Your task to perform on an android device: Show the shopping cart on newegg.com. Add panasonic triple a to the cart on newegg.com, then select checkout. Image 0: 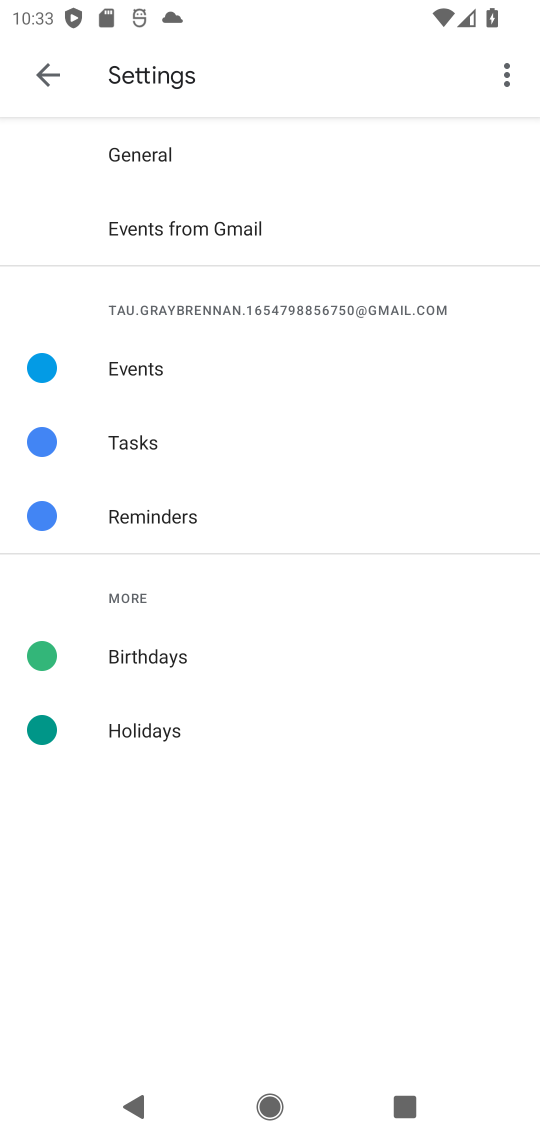
Step 0: press home button
Your task to perform on an android device: Show the shopping cart on newegg.com. Add panasonic triple a to the cart on newegg.com, then select checkout. Image 1: 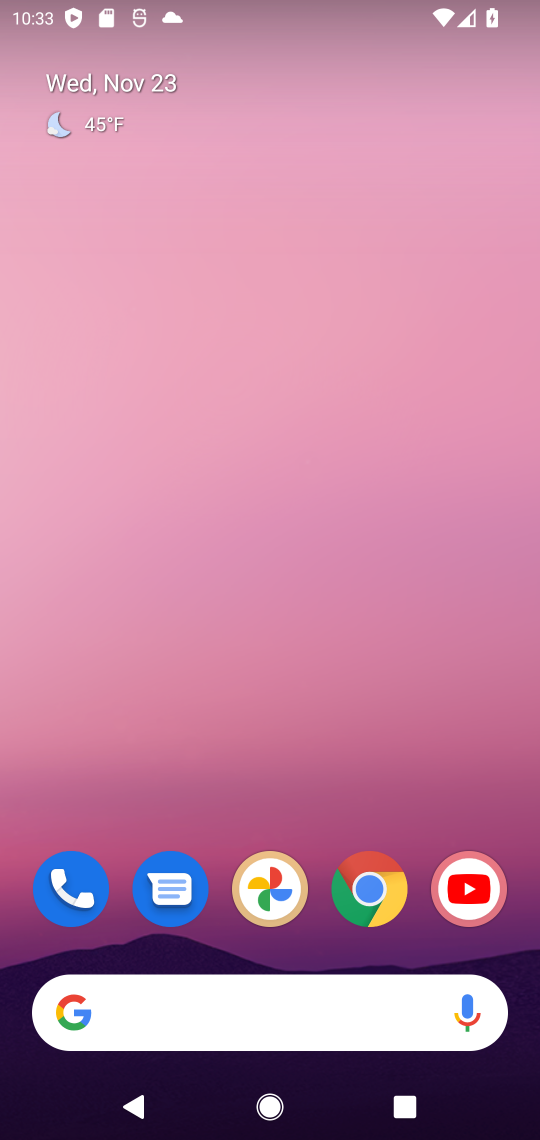
Step 1: click (355, 894)
Your task to perform on an android device: Show the shopping cart on newegg.com. Add panasonic triple a to the cart on newegg.com, then select checkout. Image 2: 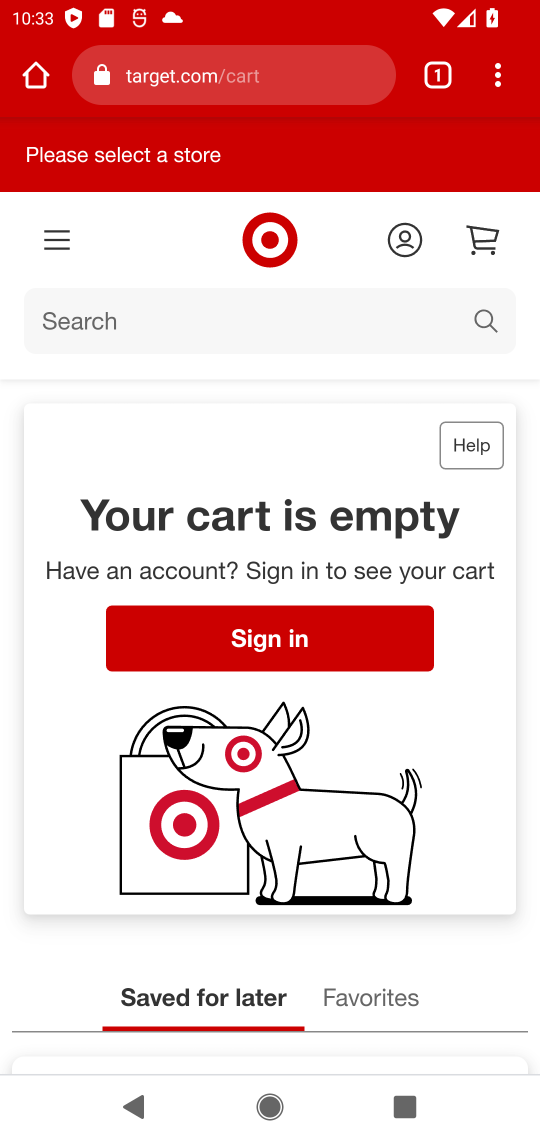
Step 2: click (168, 78)
Your task to perform on an android device: Show the shopping cart on newegg.com. Add panasonic triple a to the cart on newegg.com, then select checkout. Image 3: 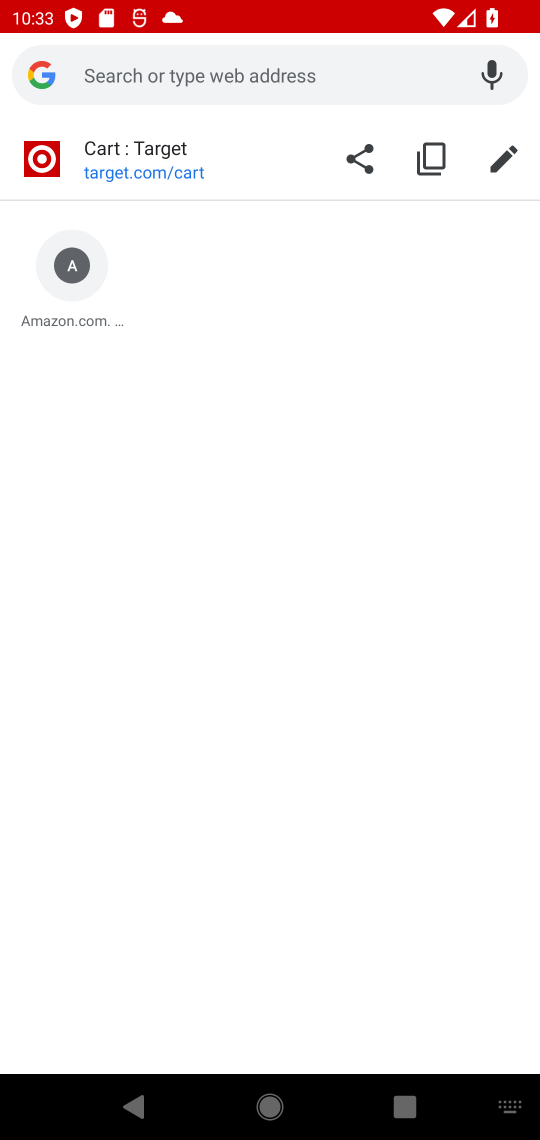
Step 3: type "newegg.com"
Your task to perform on an android device: Show the shopping cart on newegg.com. Add panasonic triple a to the cart on newegg.com, then select checkout. Image 4: 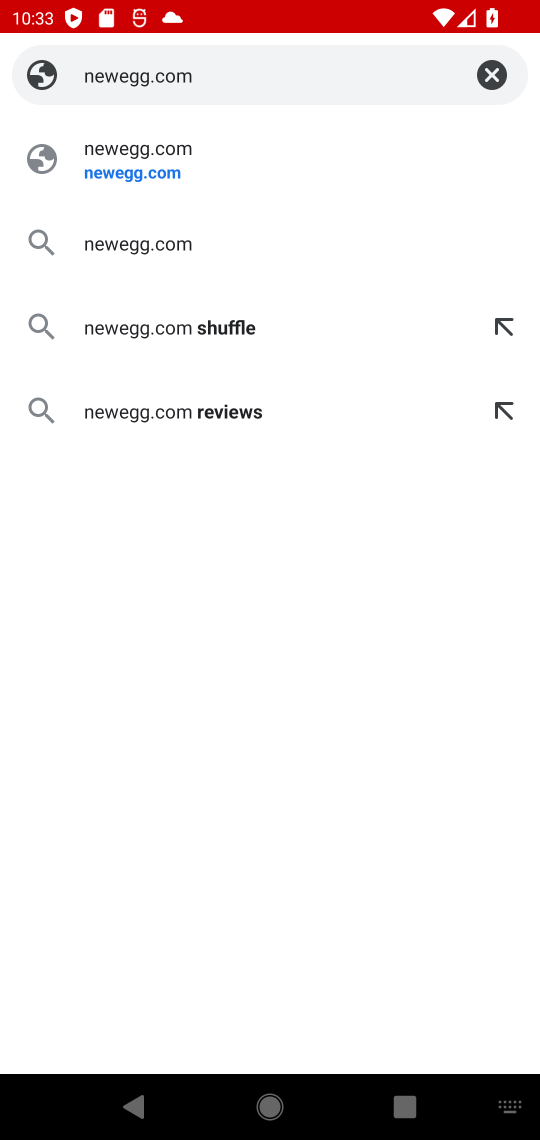
Step 4: click (116, 171)
Your task to perform on an android device: Show the shopping cart on newegg.com. Add panasonic triple a to the cart on newegg.com, then select checkout. Image 5: 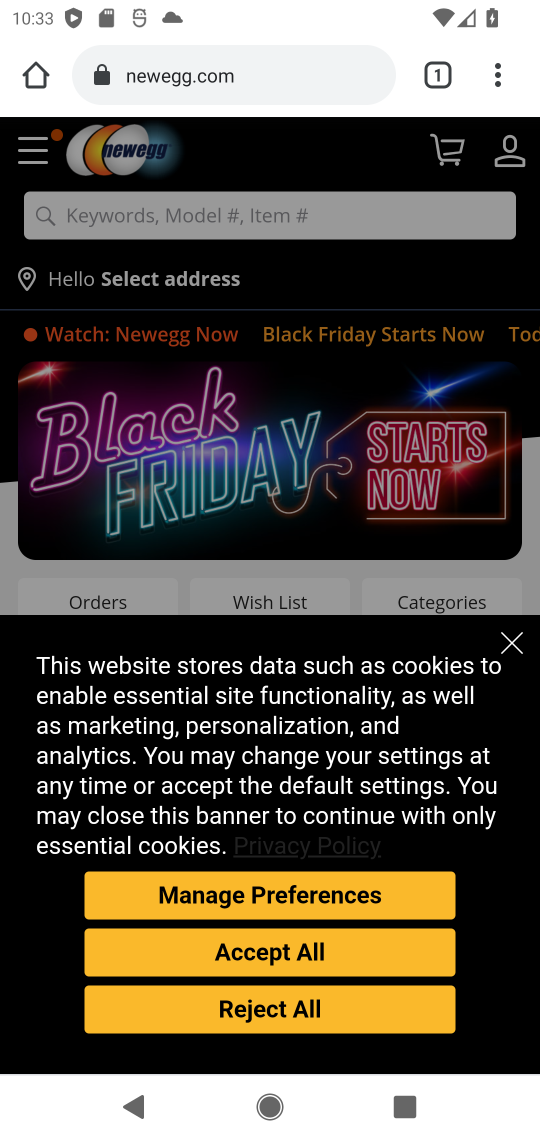
Step 5: click (453, 159)
Your task to perform on an android device: Show the shopping cart on newegg.com. Add panasonic triple a to the cart on newegg.com, then select checkout. Image 6: 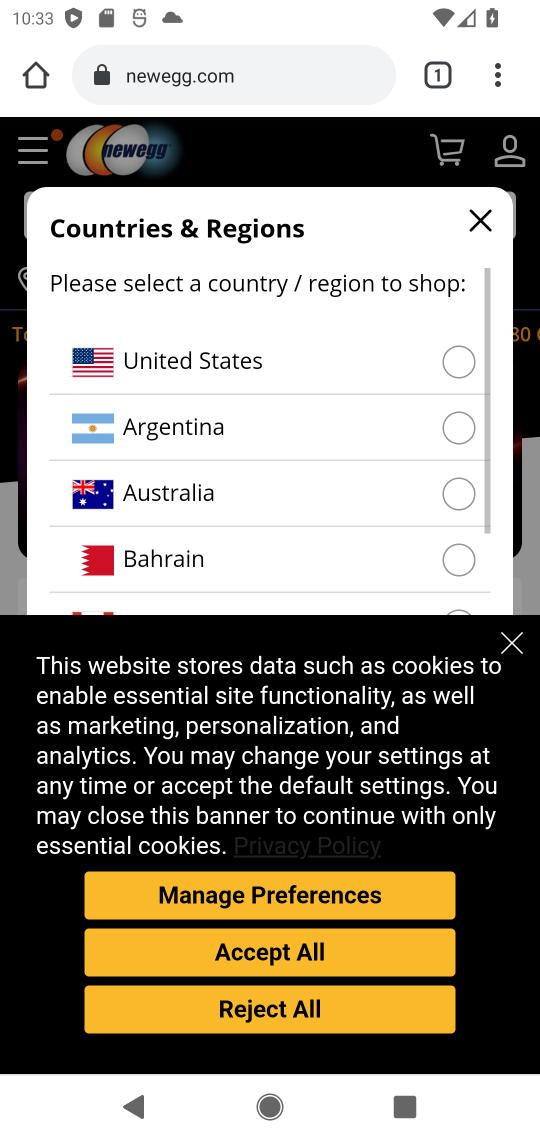
Step 6: click (515, 644)
Your task to perform on an android device: Show the shopping cart on newegg.com. Add panasonic triple a to the cart on newegg.com, then select checkout. Image 7: 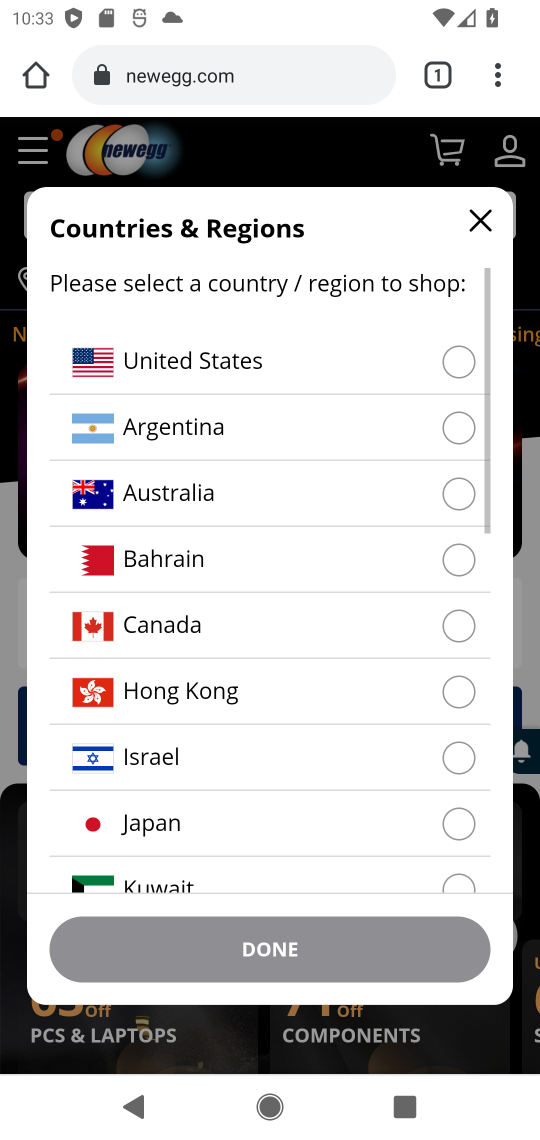
Step 7: click (156, 361)
Your task to perform on an android device: Show the shopping cart on newegg.com. Add panasonic triple a to the cart on newegg.com, then select checkout. Image 8: 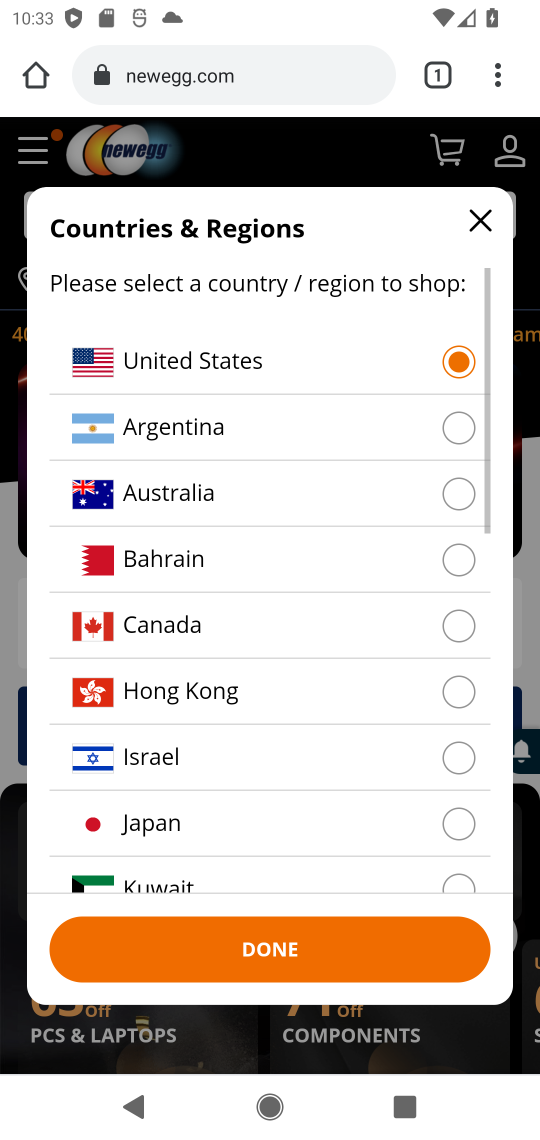
Step 8: click (230, 961)
Your task to perform on an android device: Show the shopping cart on newegg.com. Add panasonic triple a to the cart on newegg.com, then select checkout. Image 9: 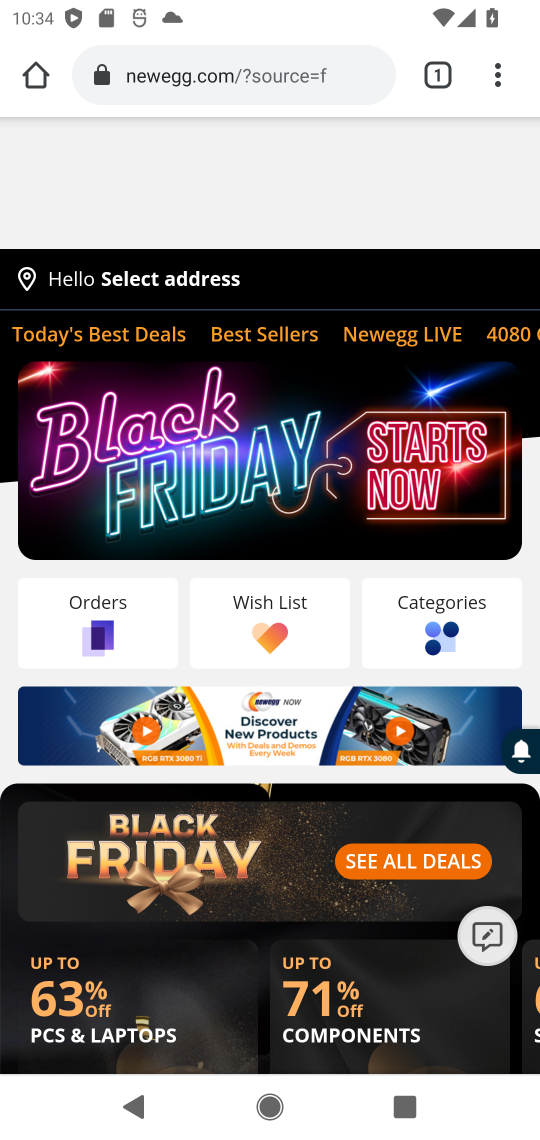
Step 9: click (455, 145)
Your task to perform on an android device: Show the shopping cart on newegg.com. Add panasonic triple a to the cart on newegg.com, then select checkout. Image 10: 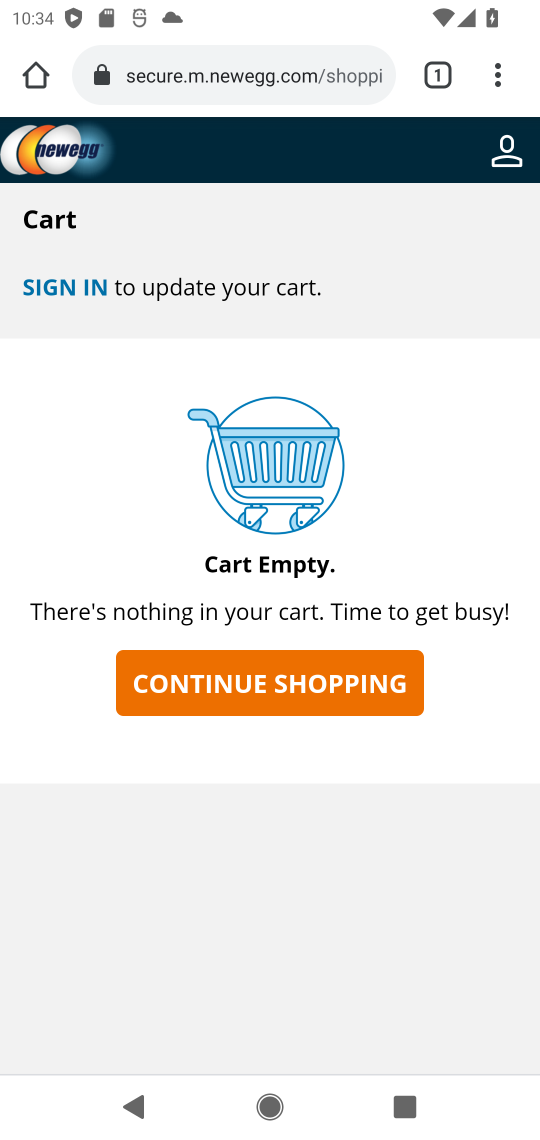
Step 10: click (255, 684)
Your task to perform on an android device: Show the shopping cart on newegg.com. Add panasonic triple a to the cart on newegg.com, then select checkout. Image 11: 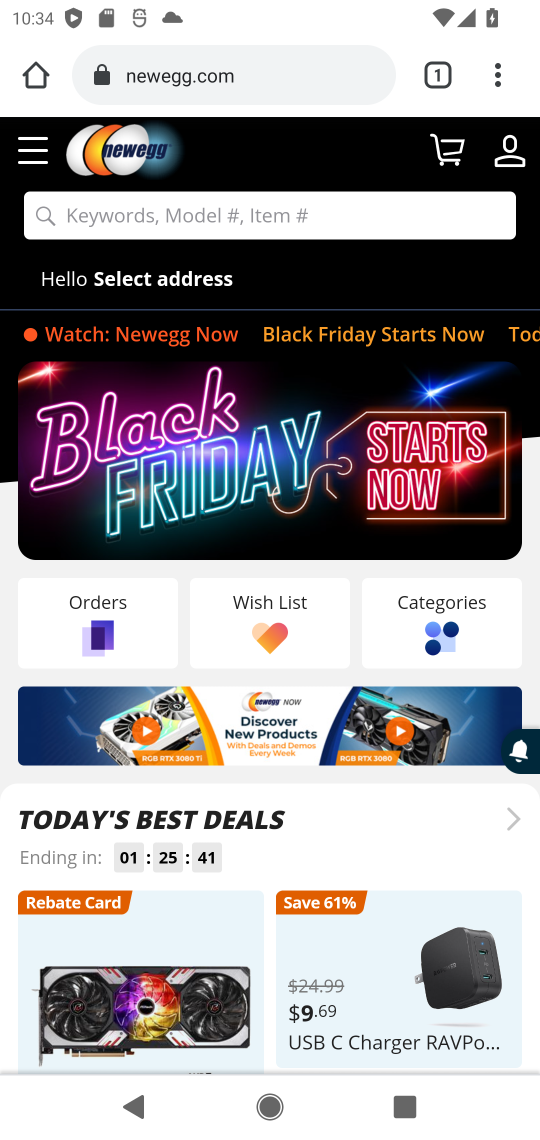
Step 11: click (207, 218)
Your task to perform on an android device: Show the shopping cart on newegg.com. Add panasonic triple a to the cart on newegg.com, then select checkout. Image 12: 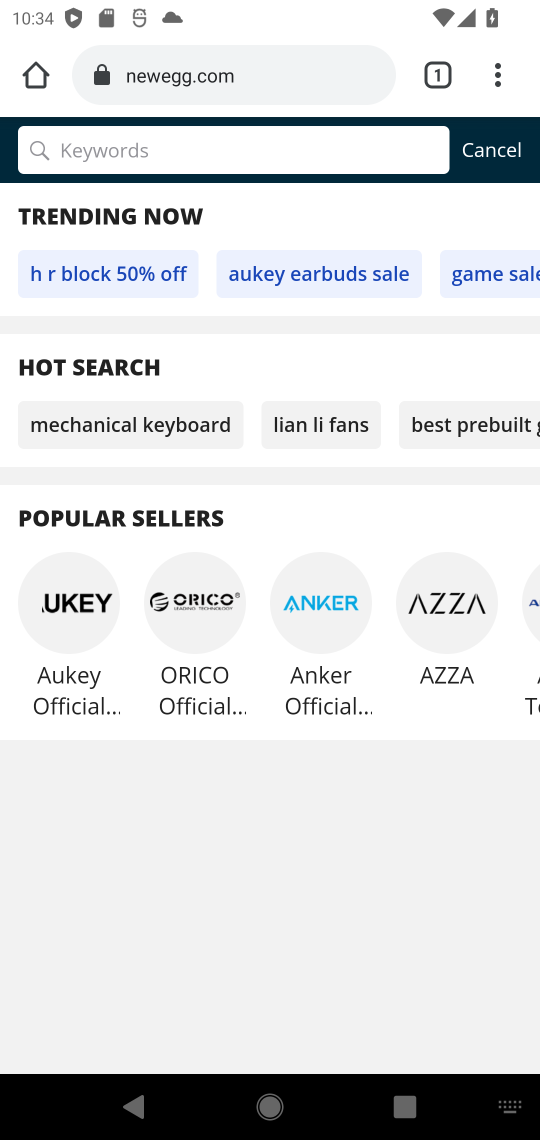
Step 12: type "panasonic triple a"
Your task to perform on an android device: Show the shopping cart on newegg.com. Add panasonic triple a to the cart on newegg.com, then select checkout. Image 13: 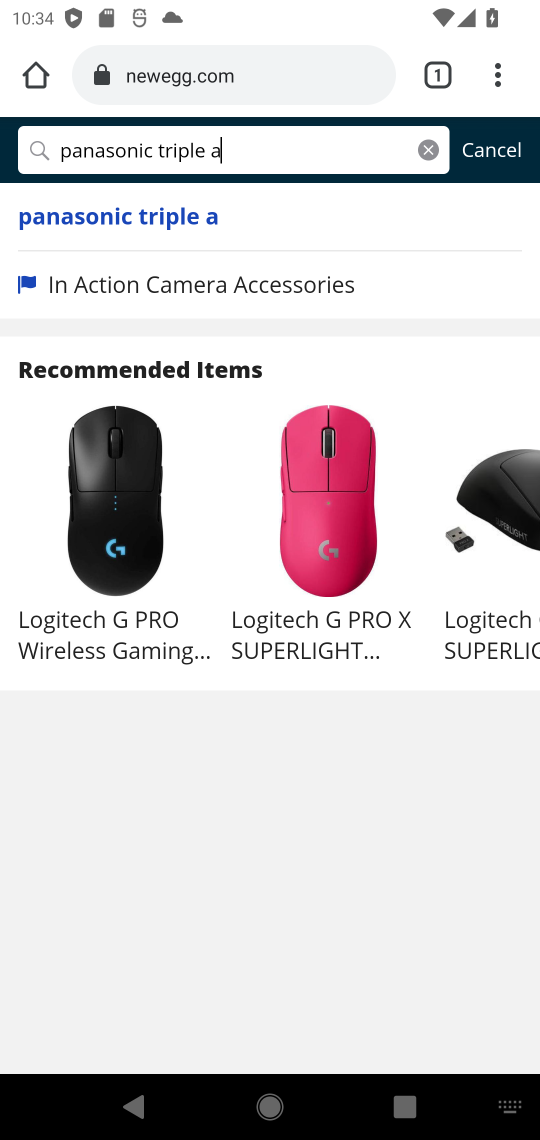
Step 13: click (117, 215)
Your task to perform on an android device: Show the shopping cart on newegg.com. Add panasonic triple a to the cart on newegg.com, then select checkout. Image 14: 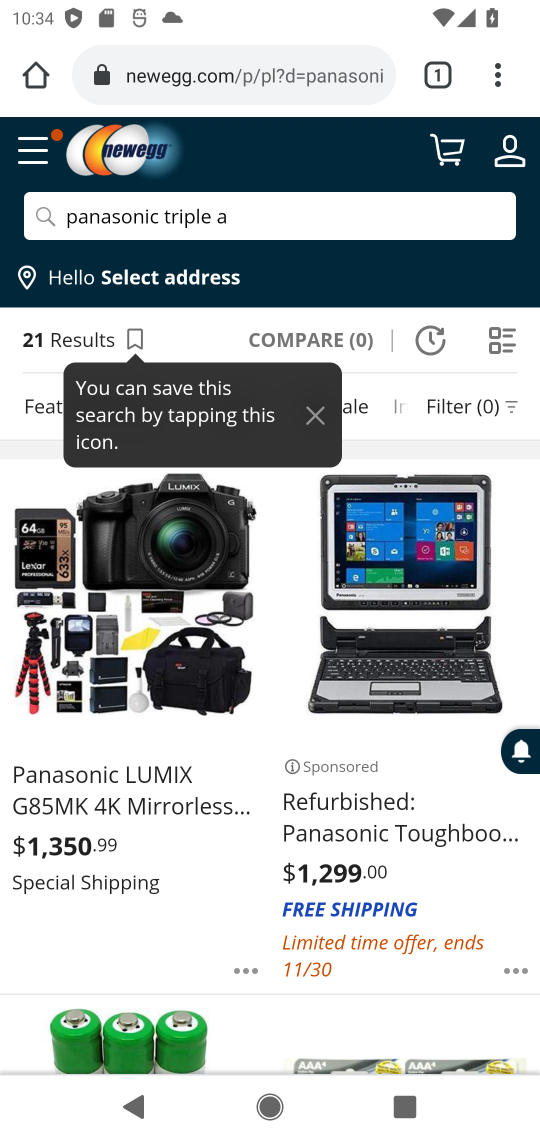
Step 14: drag from (168, 893) to (196, 685)
Your task to perform on an android device: Show the shopping cart on newegg.com. Add panasonic triple a to the cart on newegg.com, then select checkout. Image 15: 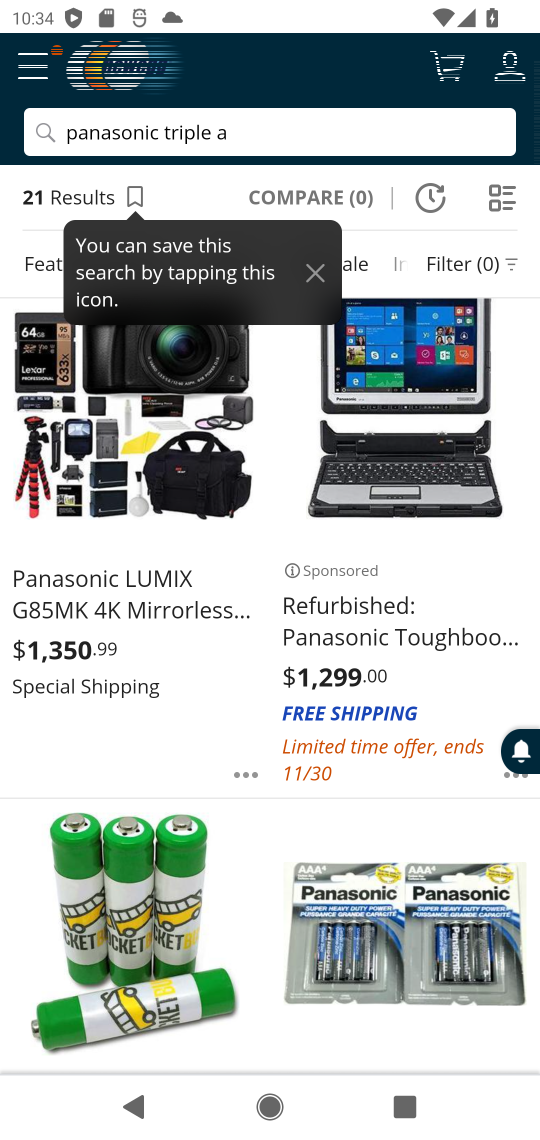
Step 15: drag from (172, 941) to (170, 612)
Your task to perform on an android device: Show the shopping cart on newegg.com. Add panasonic triple a to the cart on newegg.com, then select checkout. Image 16: 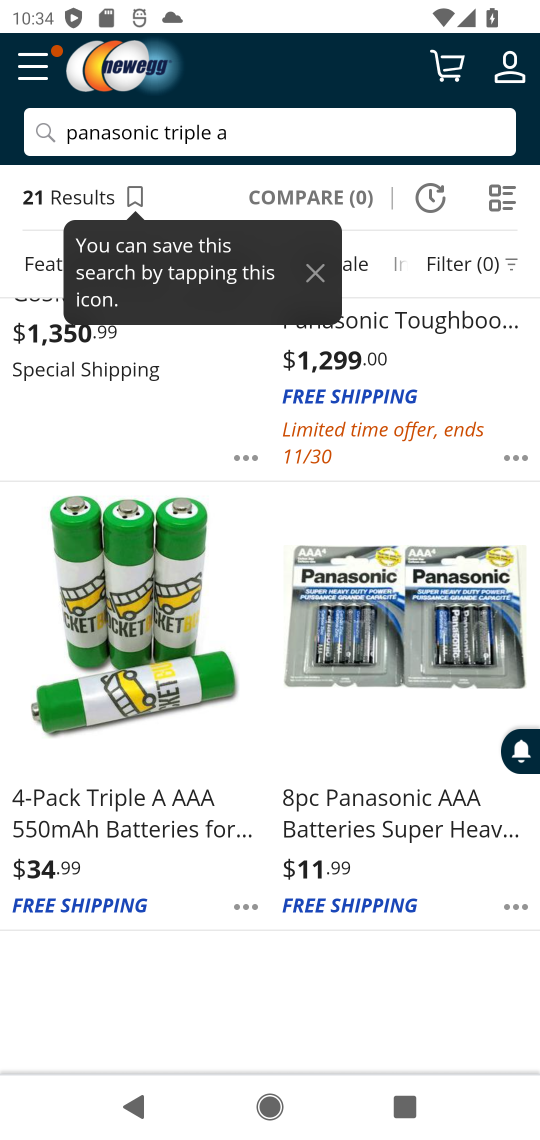
Step 16: click (434, 654)
Your task to perform on an android device: Show the shopping cart on newegg.com. Add panasonic triple a to the cart on newegg.com, then select checkout. Image 17: 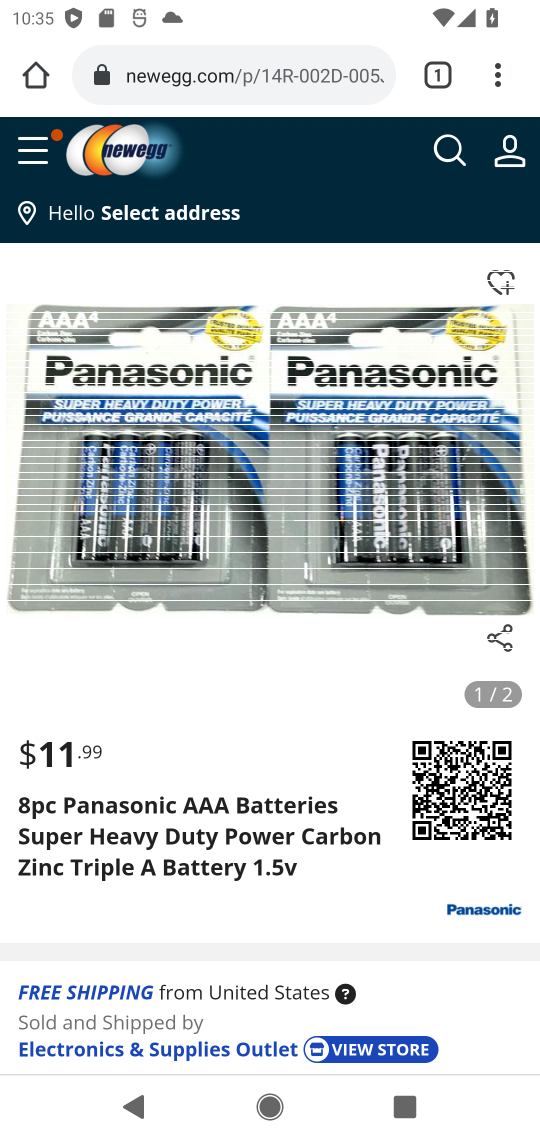
Step 17: click (272, 1041)
Your task to perform on an android device: Show the shopping cart on newegg.com. Add panasonic triple a to the cart on newegg.com, then select checkout. Image 18: 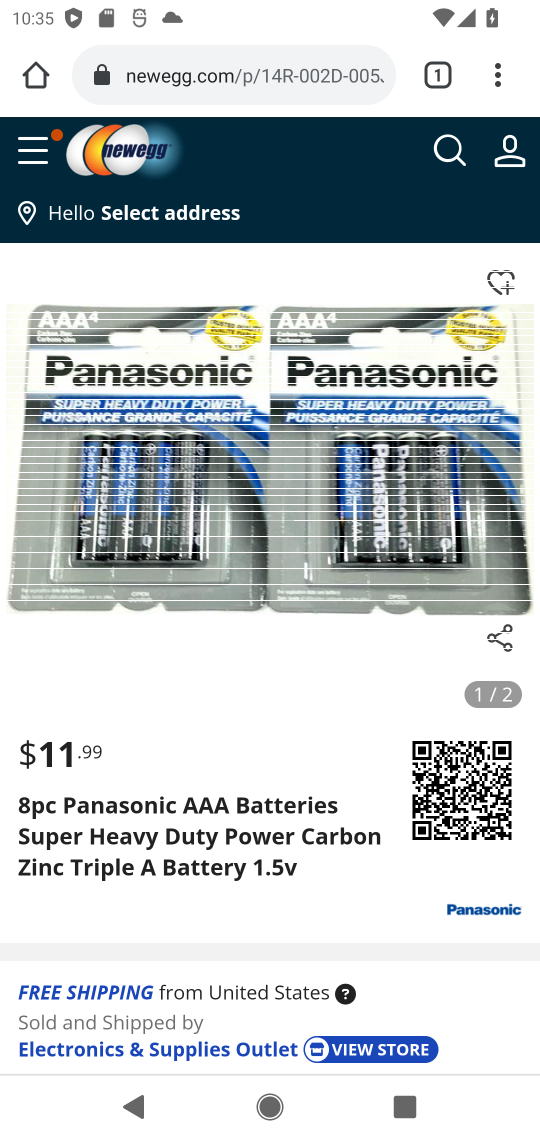
Step 18: drag from (272, 1038) to (285, 707)
Your task to perform on an android device: Show the shopping cart on newegg.com. Add panasonic triple a to the cart on newegg.com, then select checkout. Image 19: 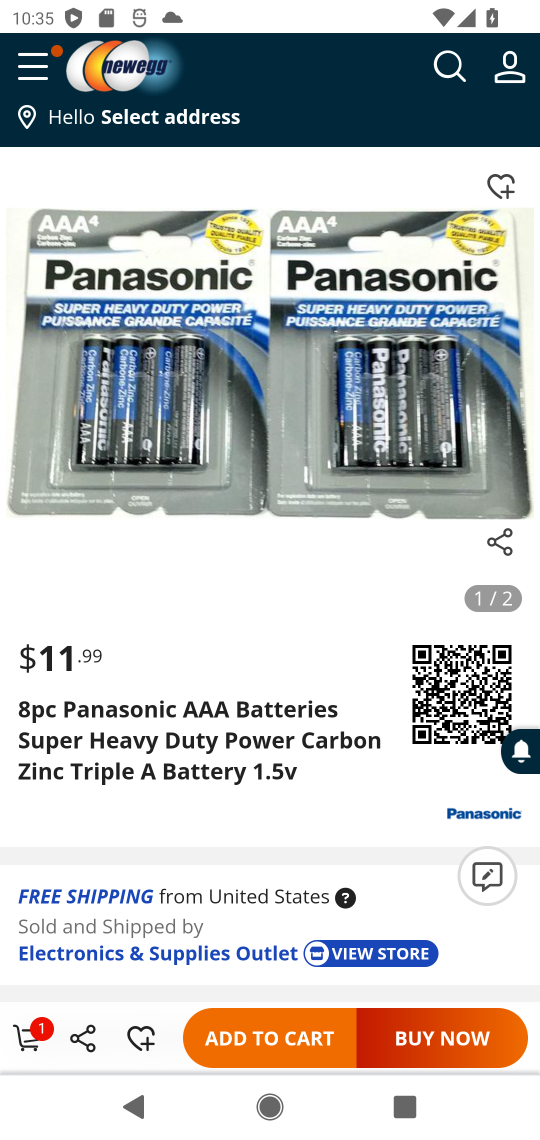
Step 19: click (31, 1036)
Your task to perform on an android device: Show the shopping cart on newegg.com. Add panasonic triple a to the cart on newegg.com, then select checkout. Image 20: 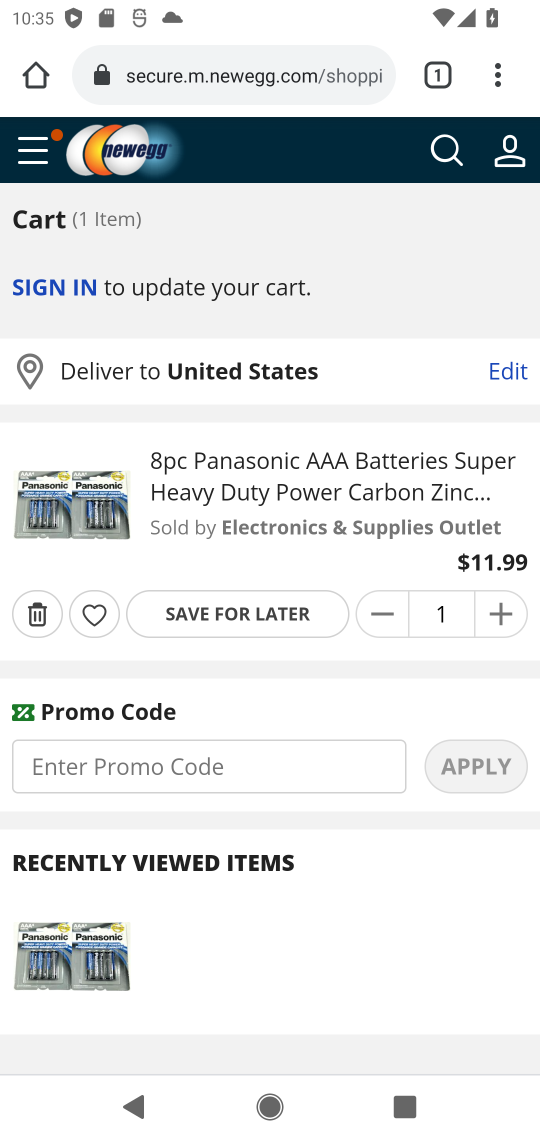
Step 20: click (223, 917)
Your task to perform on an android device: Show the shopping cart on newegg.com. Add panasonic triple a to the cart on newegg.com, then select checkout. Image 21: 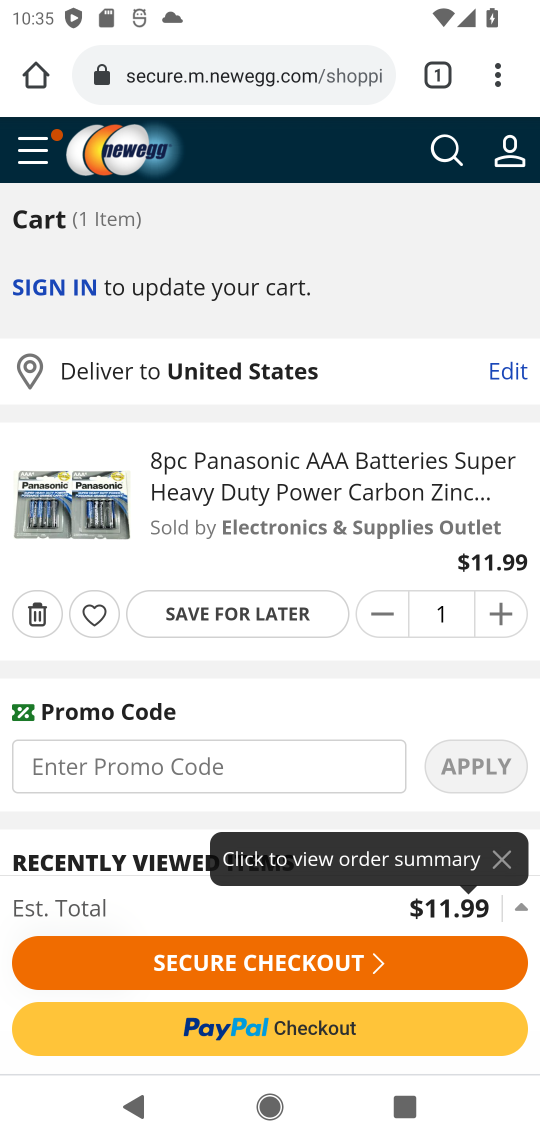
Step 21: click (214, 984)
Your task to perform on an android device: Show the shopping cart on newegg.com. Add panasonic triple a to the cart on newegg.com, then select checkout. Image 22: 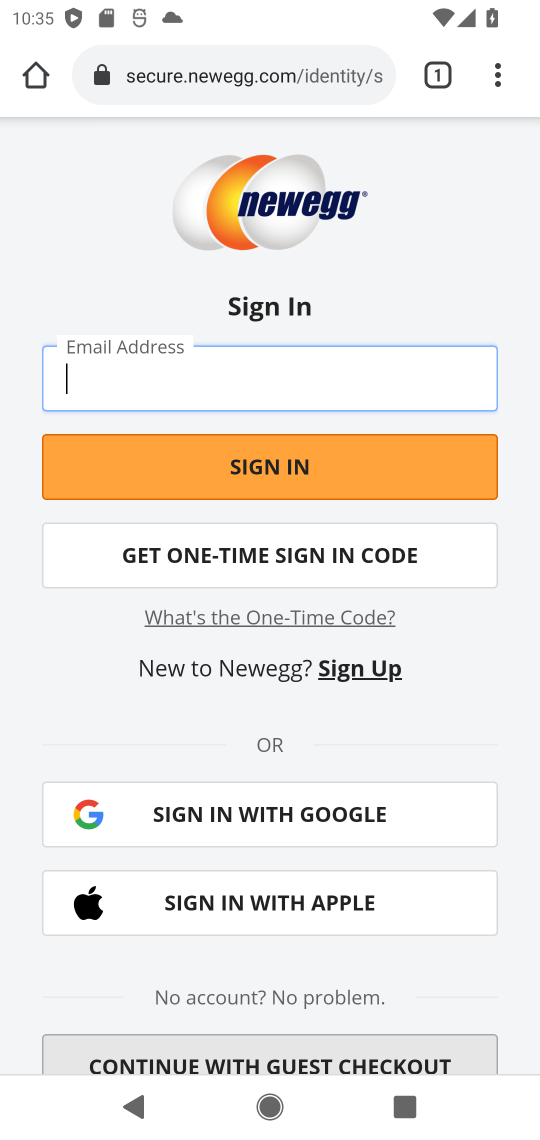
Step 22: task complete